Your task to perform on an android device: Clear the cart on walmart.com. Image 0: 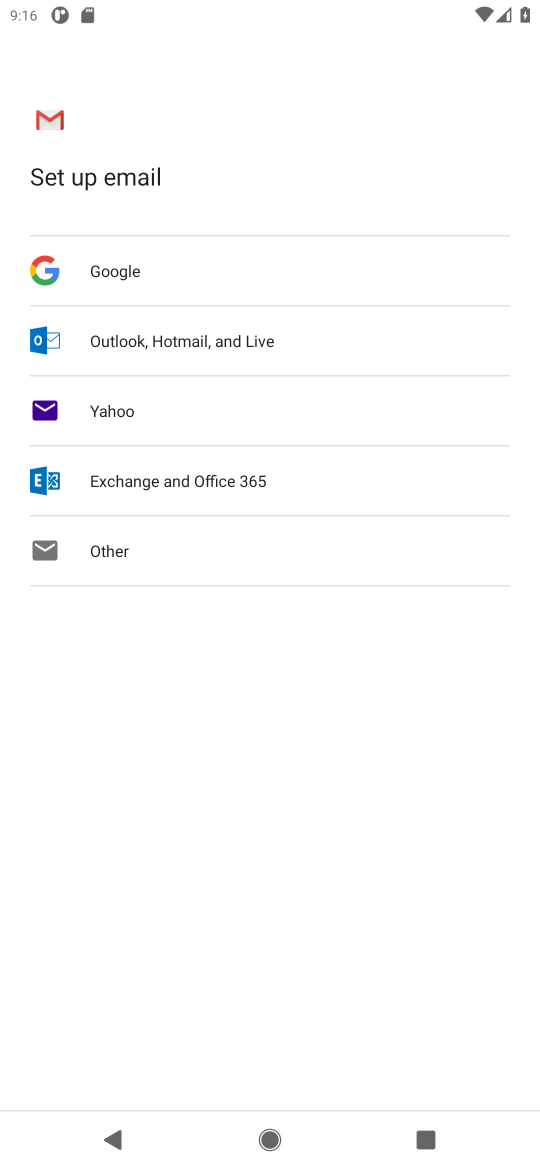
Step 0: press home button
Your task to perform on an android device: Clear the cart on walmart.com. Image 1: 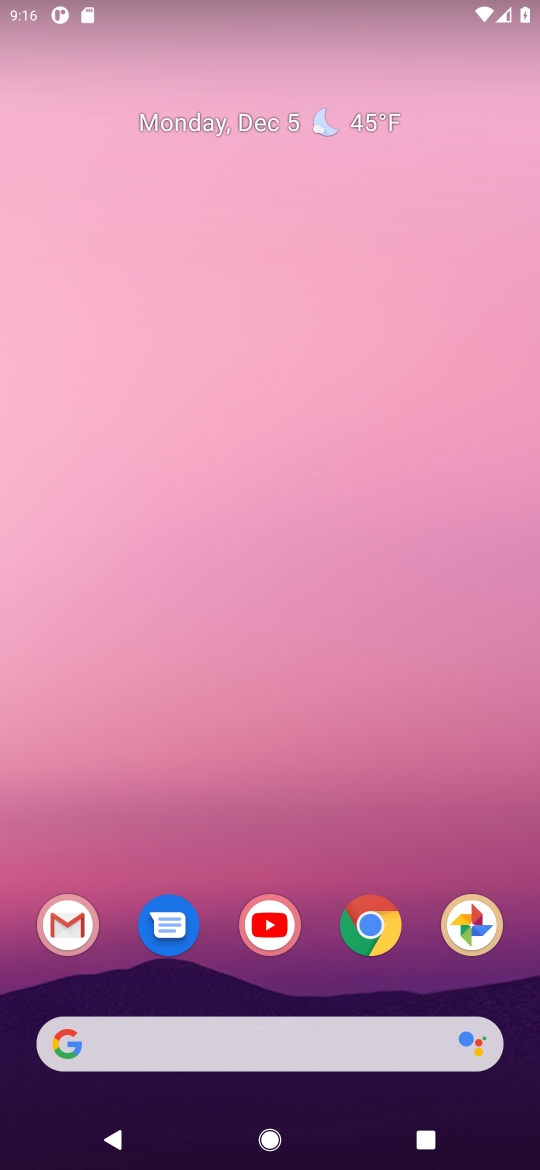
Step 1: click (366, 941)
Your task to perform on an android device: Clear the cart on walmart.com. Image 2: 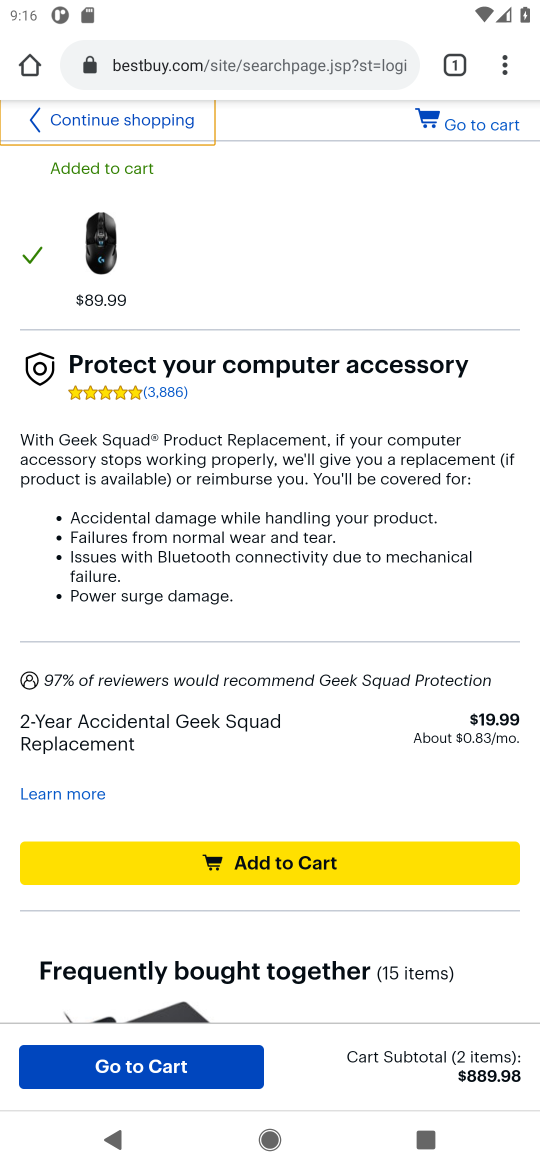
Step 2: click (177, 70)
Your task to perform on an android device: Clear the cart on walmart.com. Image 3: 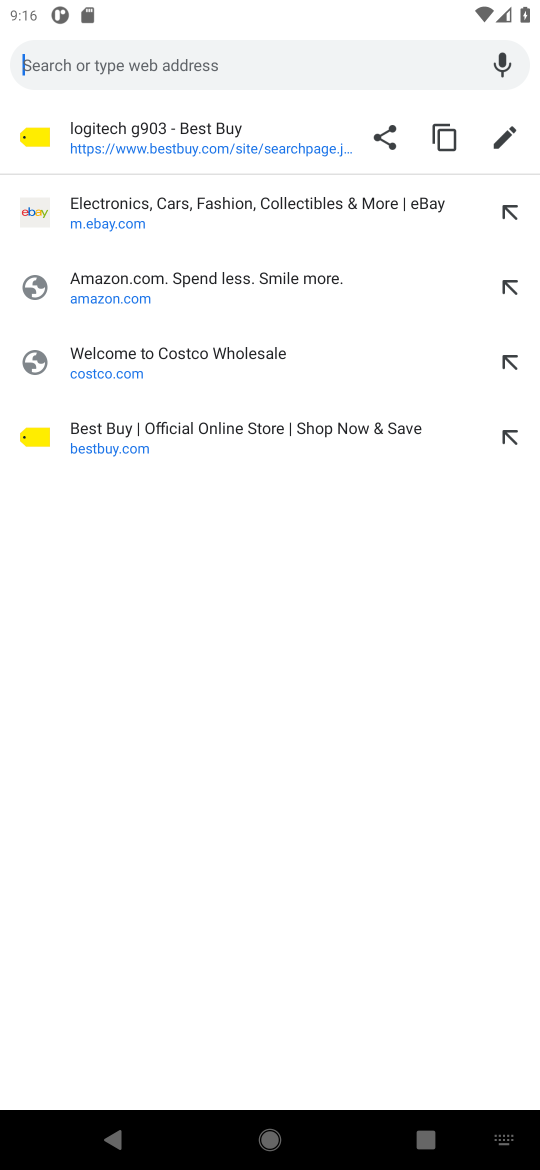
Step 3: type "walmart.com"
Your task to perform on an android device: Clear the cart on walmart.com. Image 4: 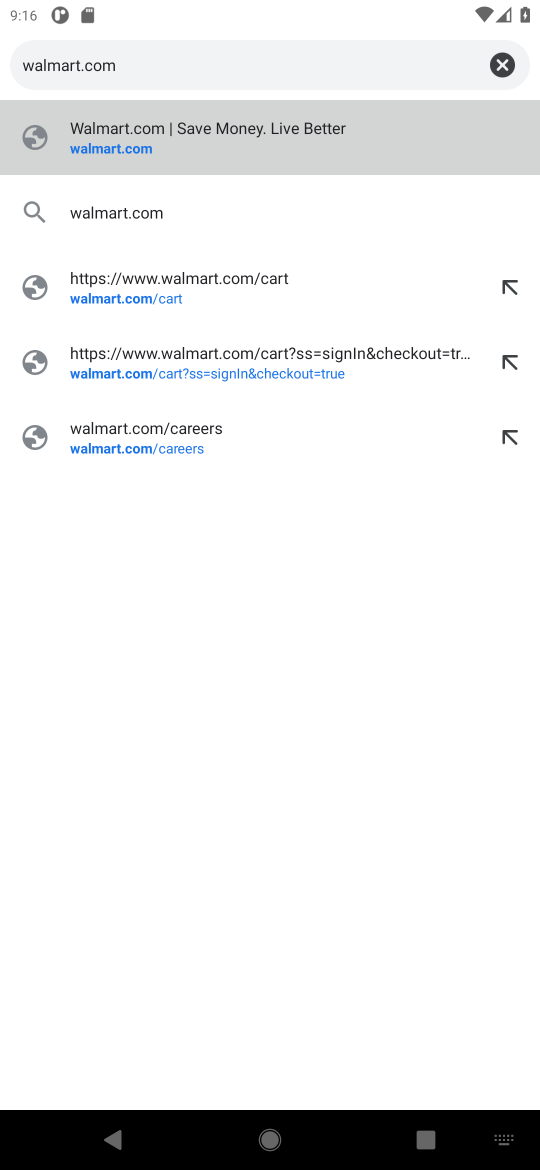
Step 4: click (84, 145)
Your task to perform on an android device: Clear the cart on walmart.com. Image 5: 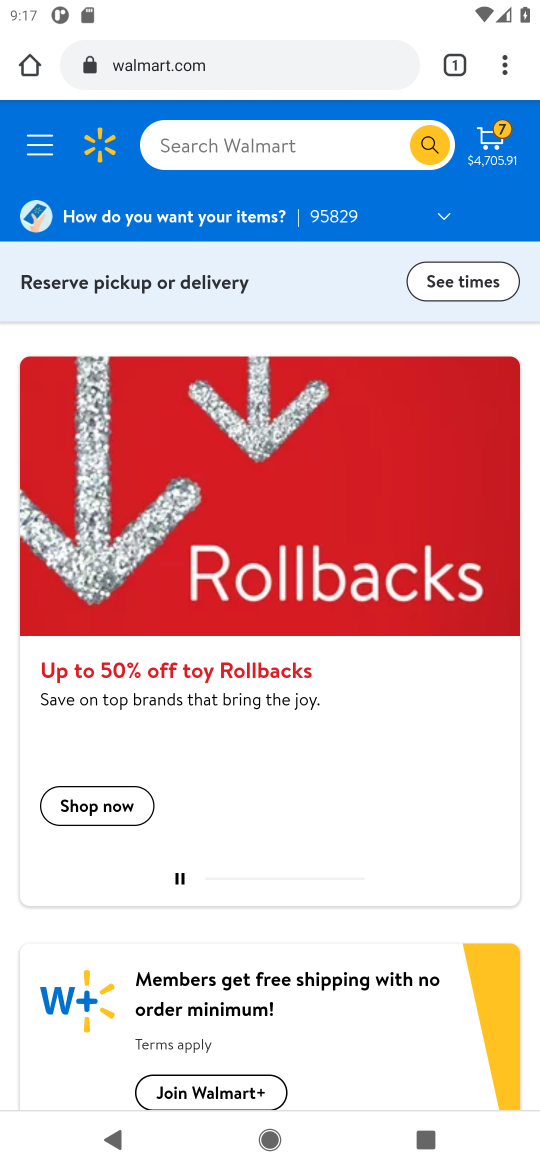
Step 5: click (494, 146)
Your task to perform on an android device: Clear the cart on walmart.com. Image 6: 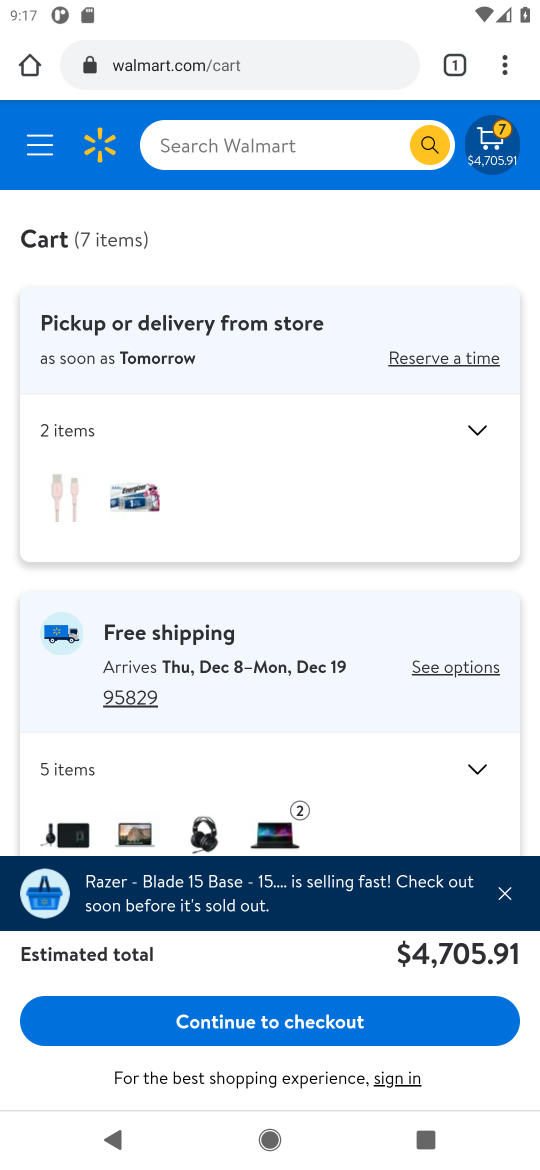
Step 6: drag from (260, 568) to (299, 442)
Your task to perform on an android device: Clear the cart on walmart.com. Image 7: 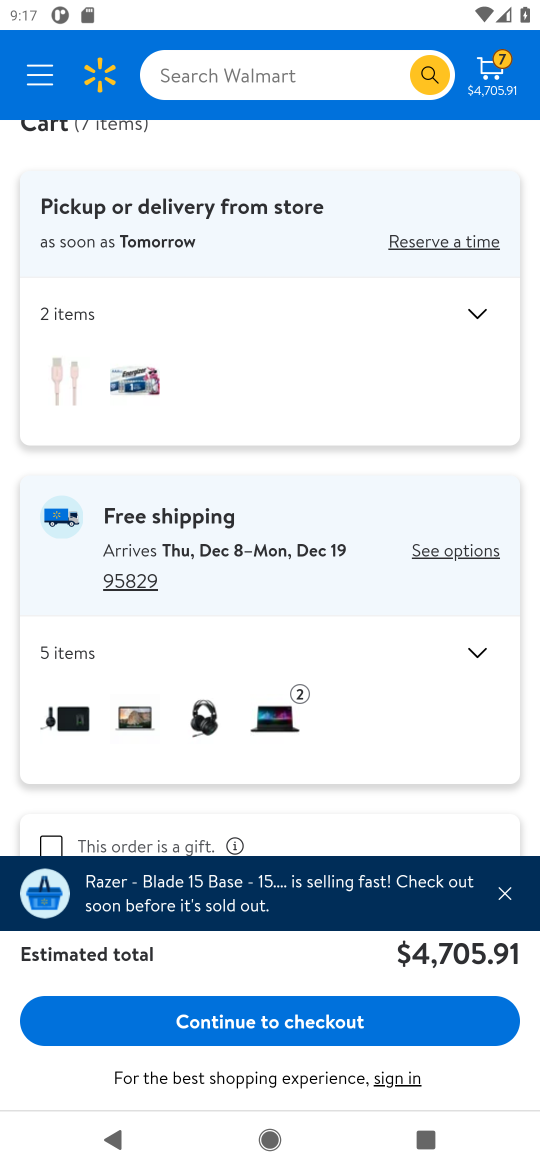
Step 7: drag from (299, 442) to (299, 628)
Your task to perform on an android device: Clear the cart on walmart.com. Image 8: 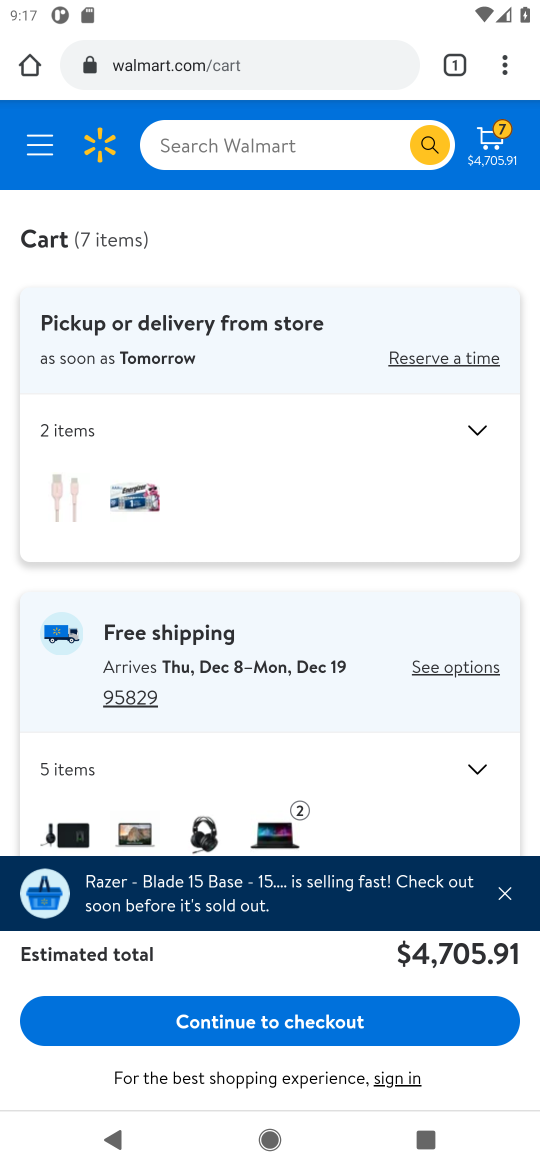
Step 8: drag from (299, 628) to (313, 488)
Your task to perform on an android device: Clear the cart on walmart.com. Image 9: 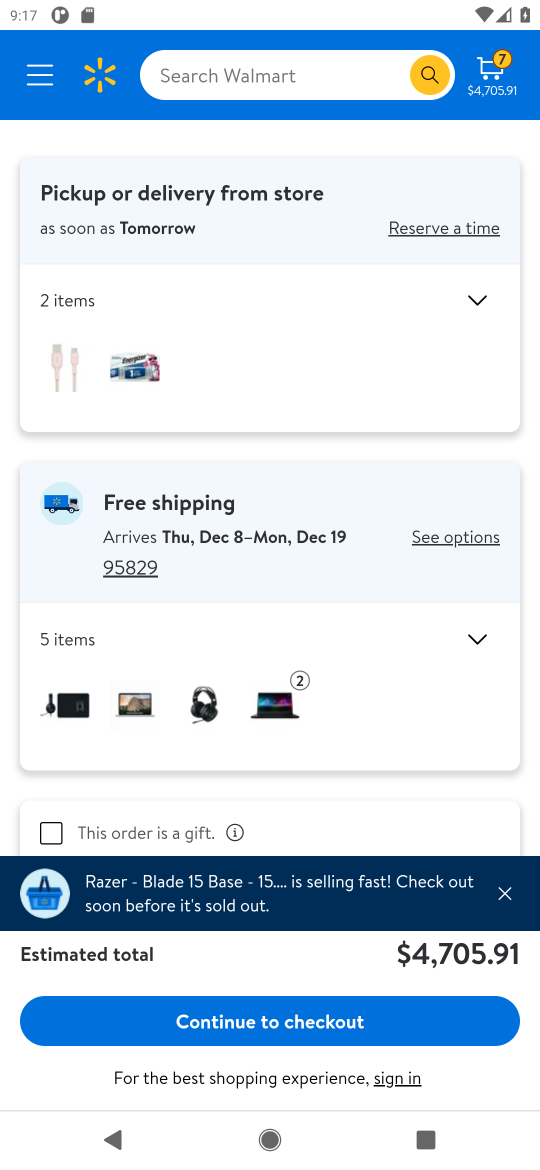
Step 9: click (507, 894)
Your task to perform on an android device: Clear the cart on walmart.com. Image 10: 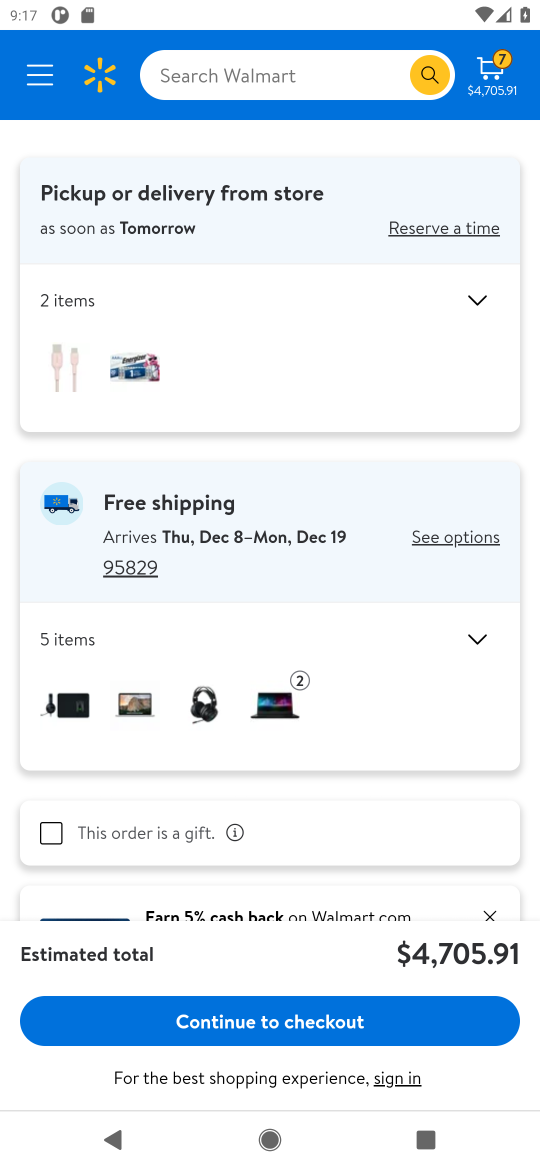
Step 10: click (484, 298)
Your task to perform on an android device: Clear the cart on walmart.com. Image 11: 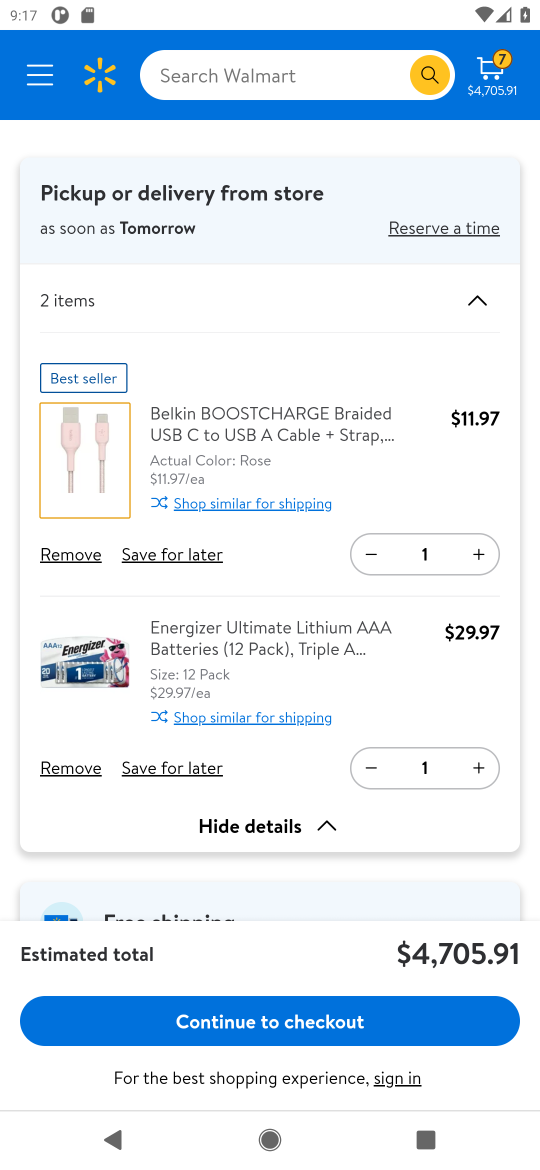
Step 11: click (81, 768)
Your task to perform on an android device: Clear the cart on walmart.com. Image 12: 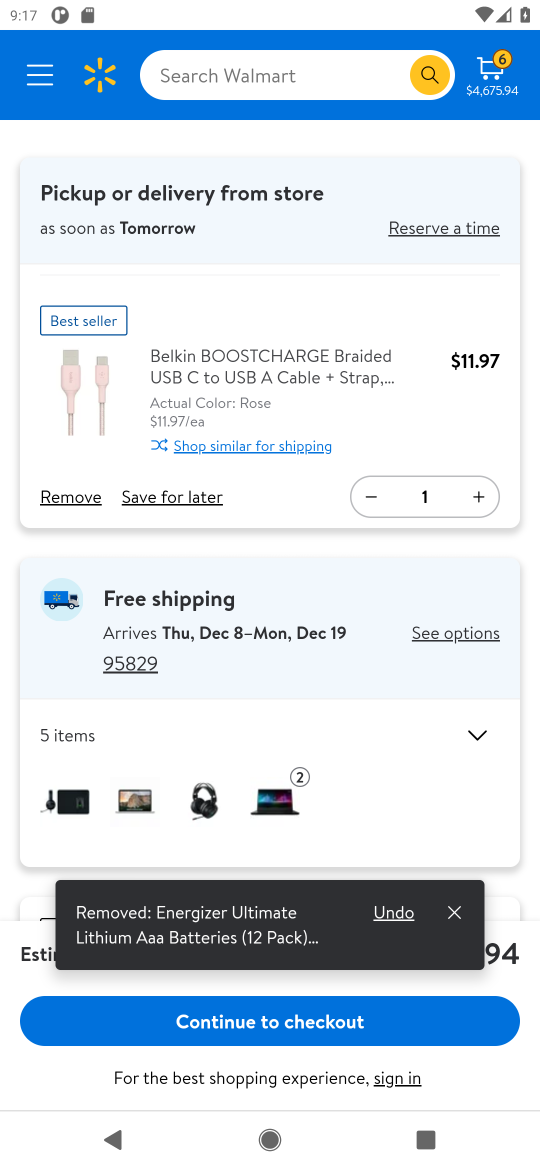
Step 12: click (91, 489)
Your task to perform on an android device: Clear the cart on walmart.com. Image 13: 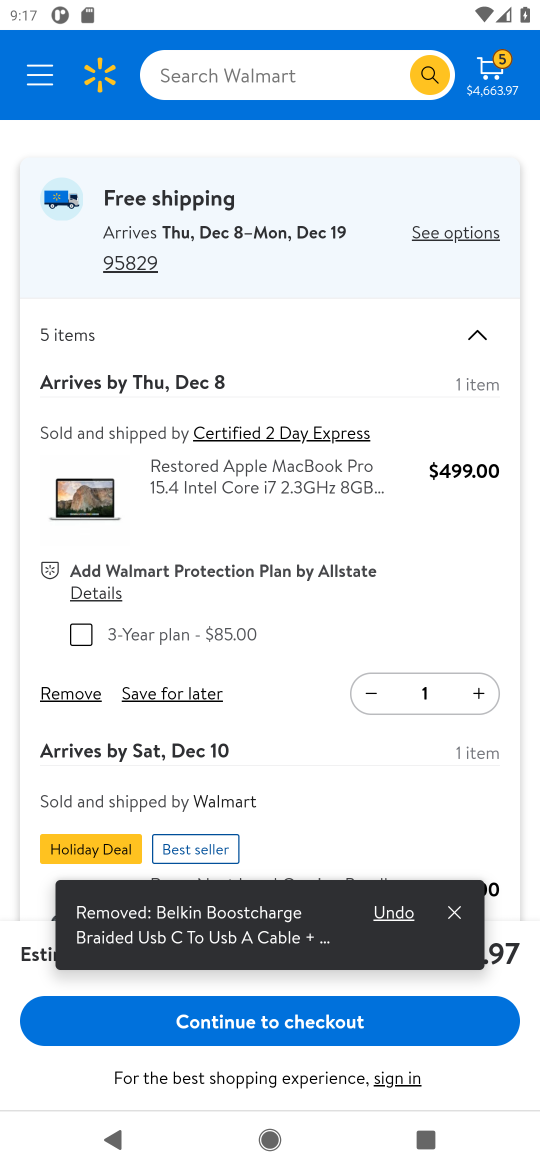
Step 13: click (81, 696)
Your task to perform on an android device: Clear the cart on walmart.com. Image 14: 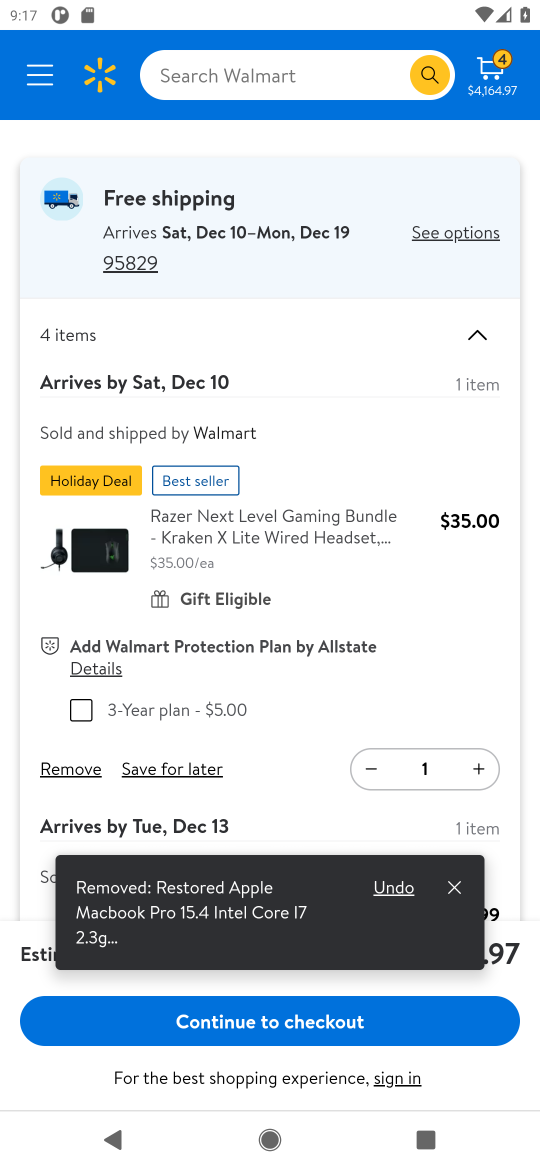
Step 14: click (71, 771)
Your task to perform on an android device: Clear the cart on walmart.com. Image 15: 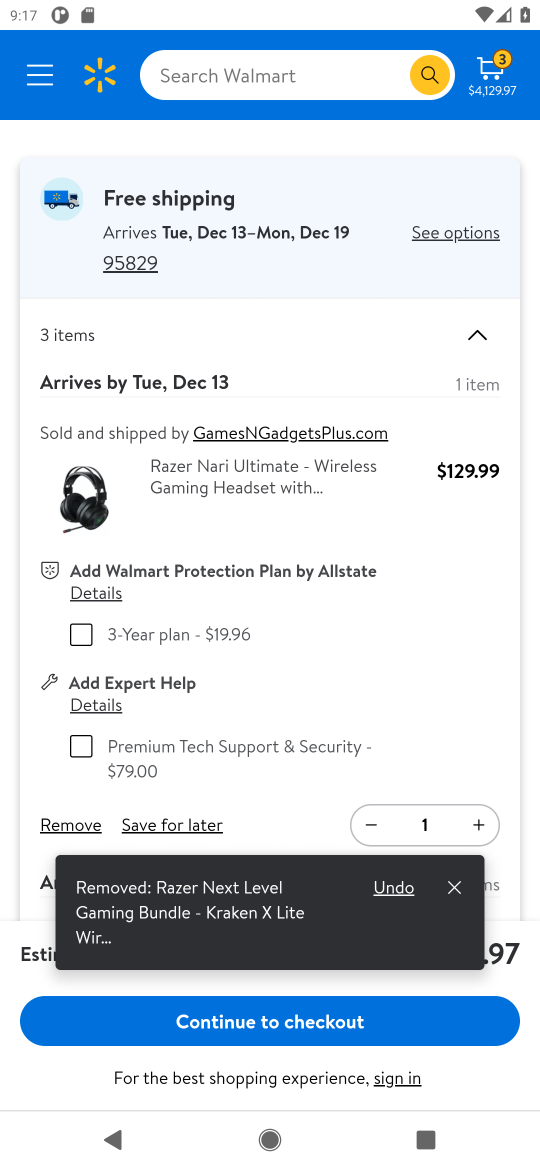
Step 15: click (75, 824)
Your task to perform on an android device: Clear the cart on walmart.com. Image 16: 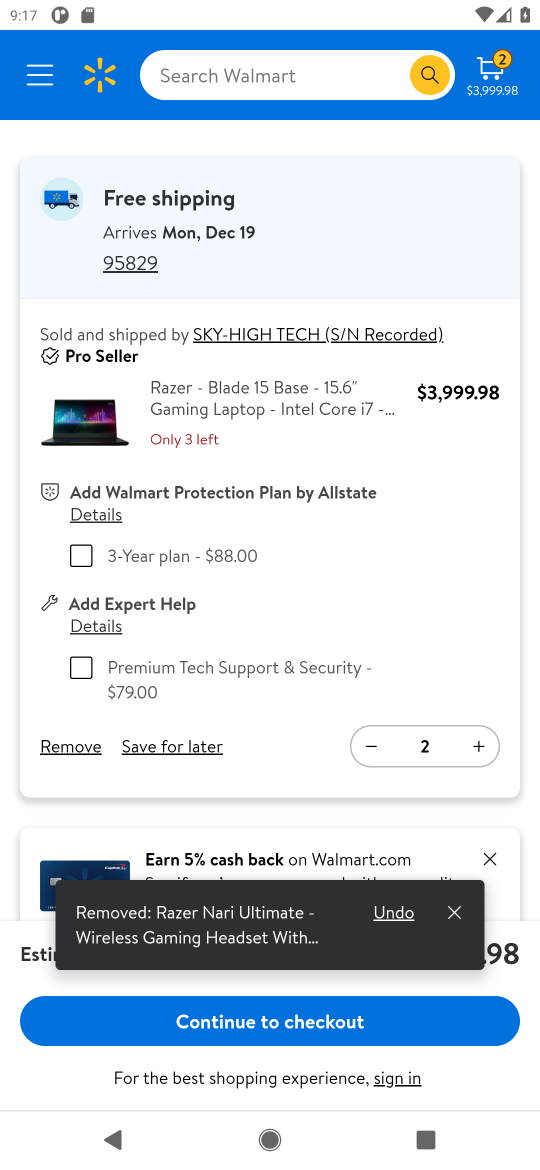
Step 16: click (67, 751)
Your task to perform on an android device: Clear the cart on walmart.com. Image 17: 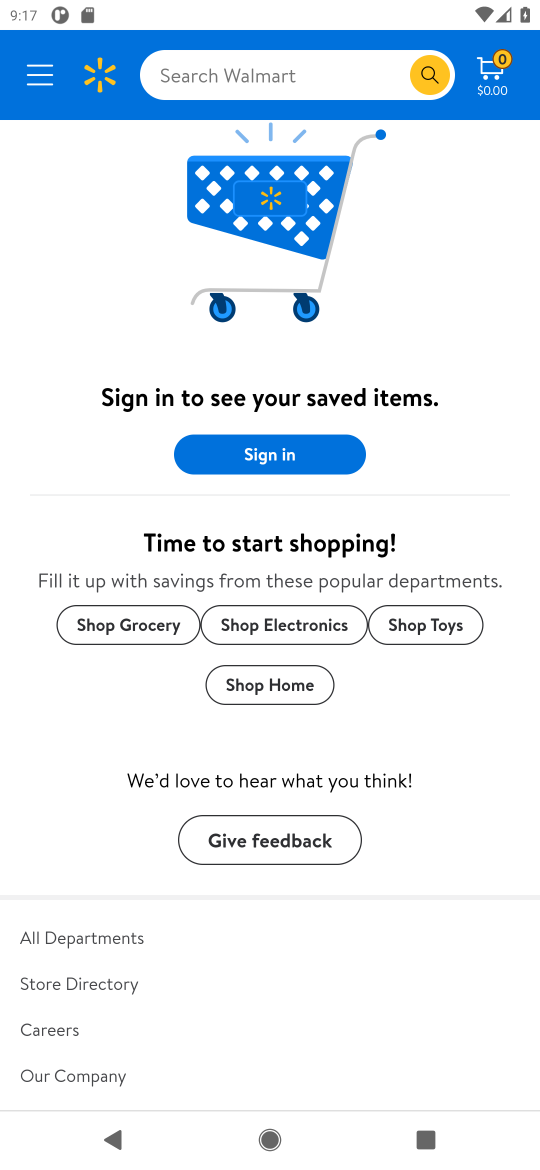
Step 17: task complete